Your task to perform on an android device: Open settings Image 0: 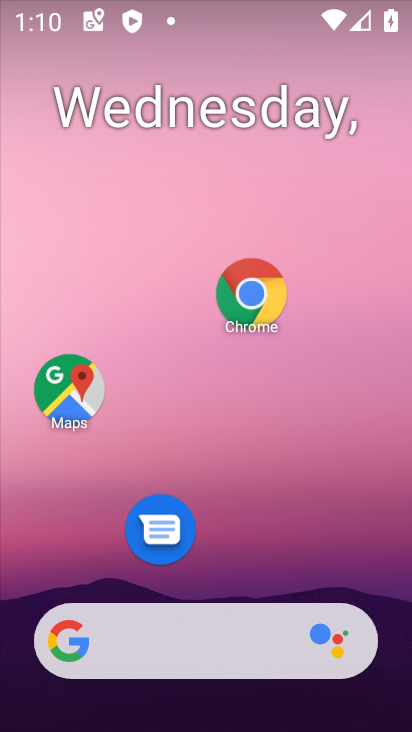
Step 0: drag from (302, 425) to (315, 198)
Your task to perform on an android device: Open settings Image 1: 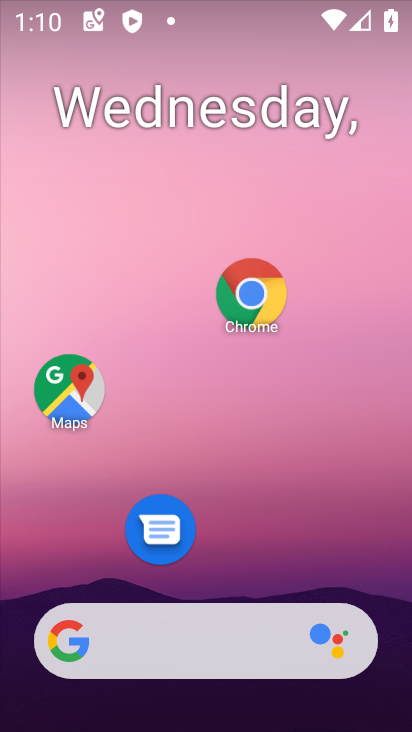
Step 1: drag from (315, 439) to (354, 171)
Your task to perform on an android device: Open settings Image 2: 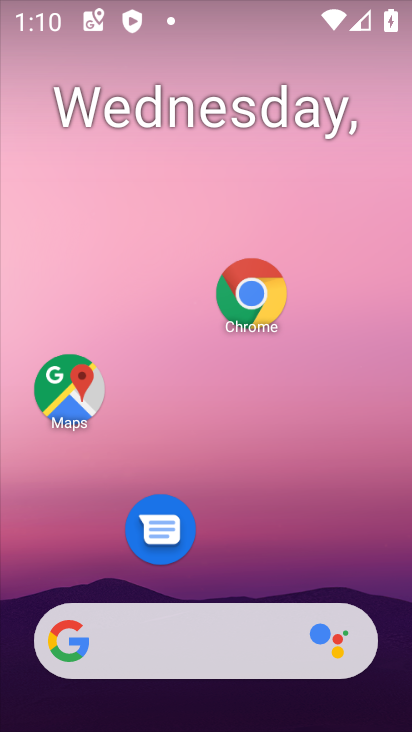
Step 2: drag from (286, 501) to (331, 182)
Your task to perform on an android device: Open settings Image 3: 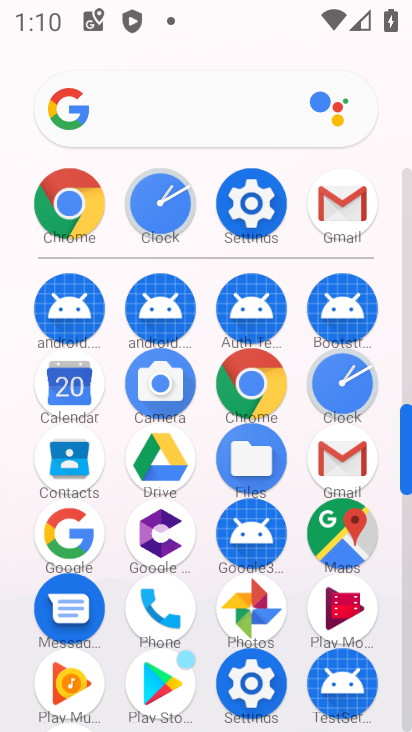
Step 3: click (266, 217)
Your task to perform on an android device: Open settings Image 4: 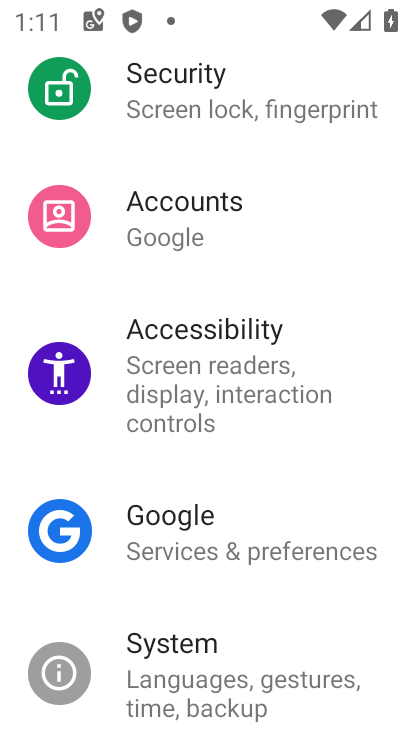
Step 4: task complete